Your task to perform on an android device: toggle data saver in the chrome app Image 0: 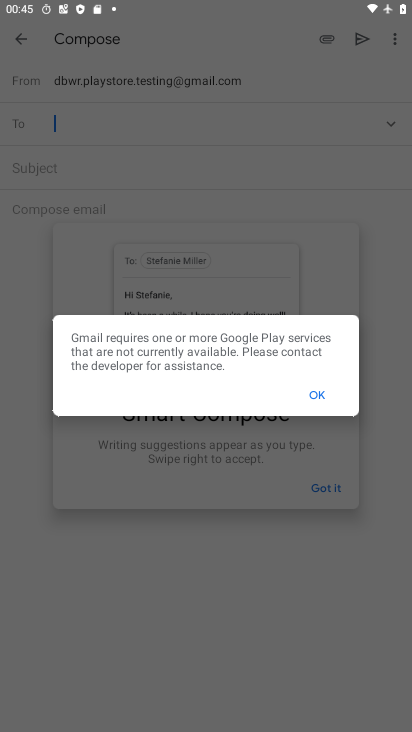
Step 0: press home button
Your task to perform on an android device: toggle data saver in the chrome app Image 1: 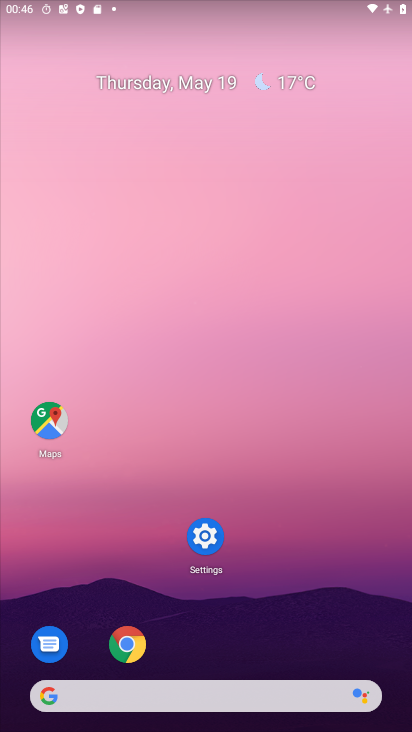
Step 1: click (311, 588)
Your task to perform on an android device: toggle data saver in the chrome app Image 2: 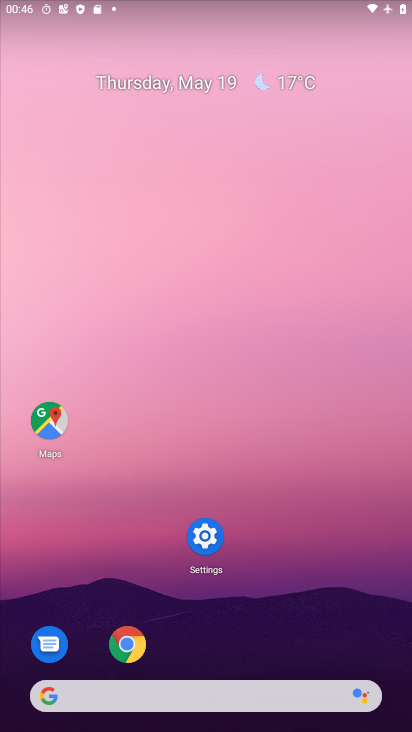
Step 2: click (132, 644)
Your task to perform on an android device: toggle data saver in the chrome app Image 3: 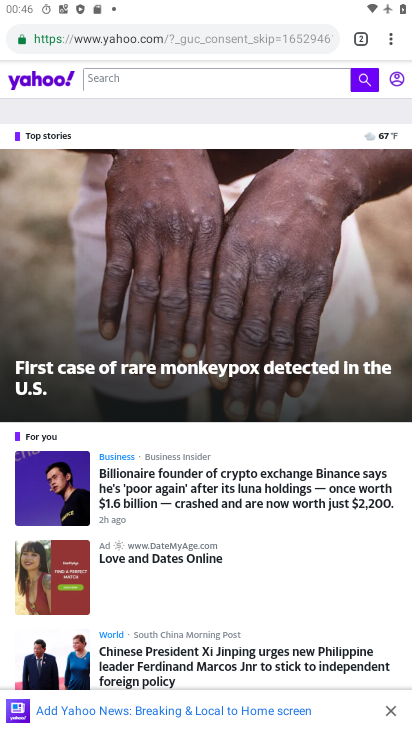
Step 3: drag from (387, 36) to (299, 479)
Your task to perform on an android device: toggle data saver in the chrome app Image 4: 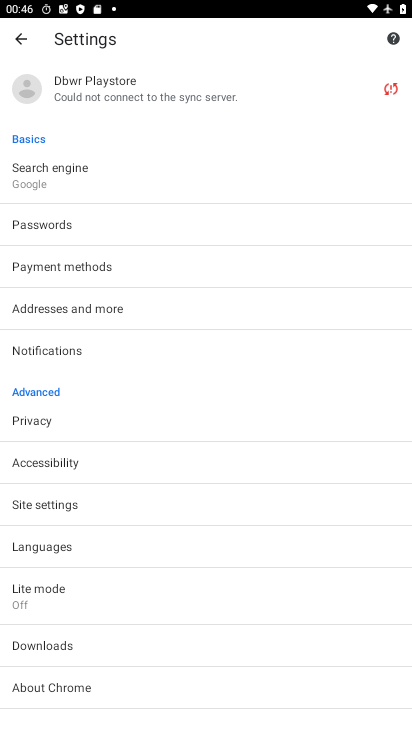
Step 4: drag from (82, 592) to (88, 509)
Your task to perform on an android device: toggle data saver in the chrome app Image 5: 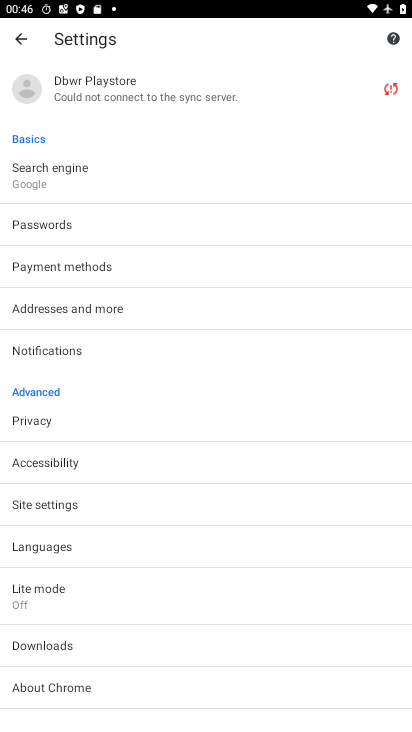
Step 5: click (52, 597)
Your task to perform on an android device: toggle data saver in the chrome app Image 6: 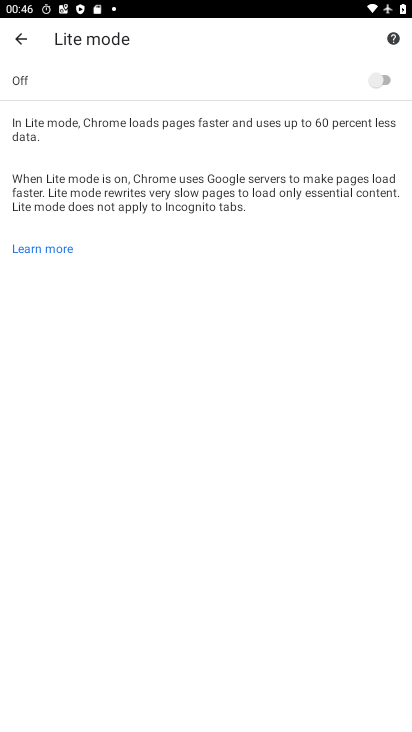
Step 6: click (377, 72)
Your task to perform on an android device: toggle data saver in the chrome app Image 7: 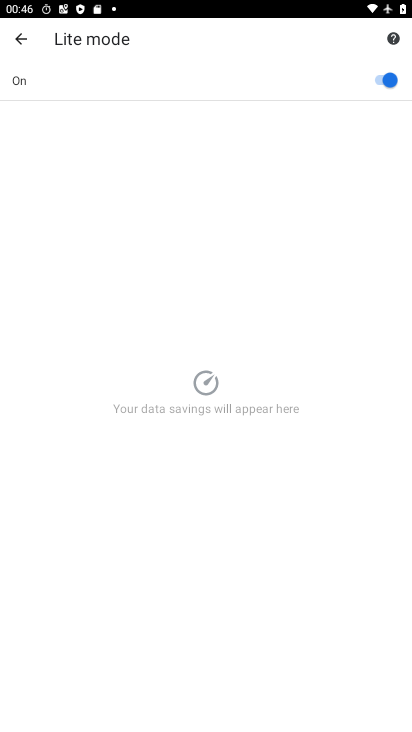
Step 7: task complete